Your task to perform on an android device: What's the weather today? Image 0: 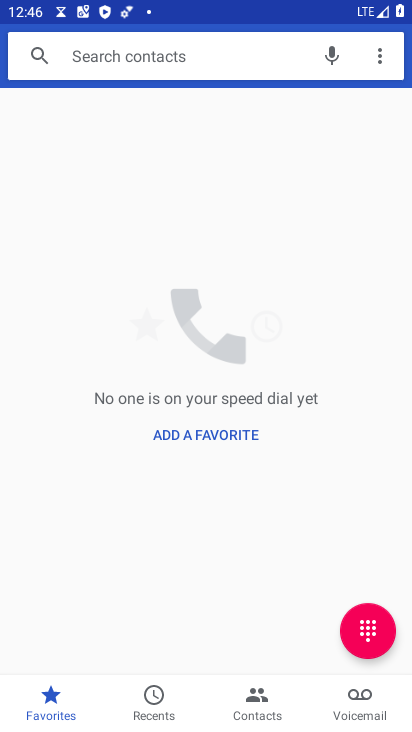
Step 0: press home button
Your task to perform on an android device: What's the weather today? Image 1: 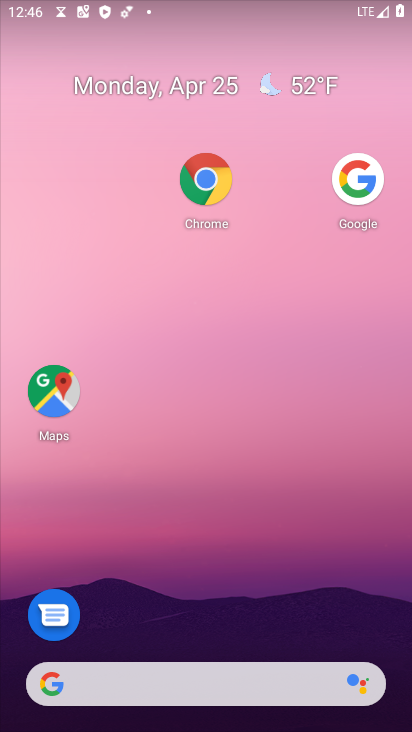
Step 1: drag from (381, 403) to (0, 393)
Your task to perform on an android device: What's the weather today? Image 2: 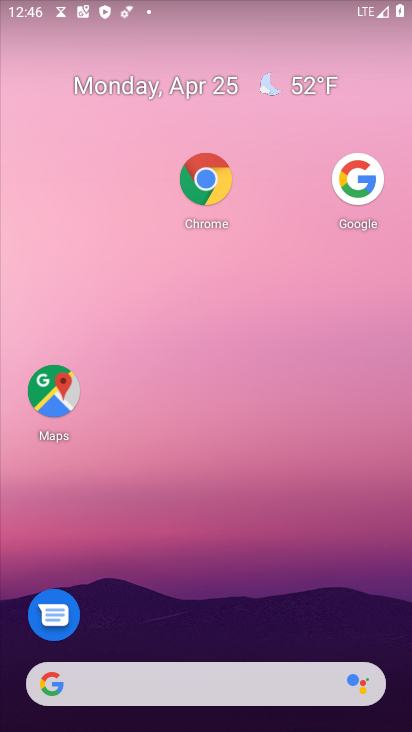
Step 2: drag from (368, 352) to (0, 367)
Your task to perform on an android device: What's the weather today? Image 3: 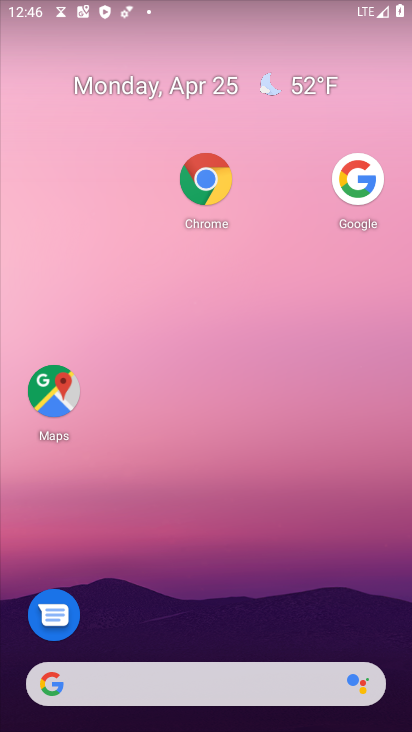
Step 3: drag from (134, 682) to (266, 105)
Your task to perform on an android device: What's the weather today? Image 4: 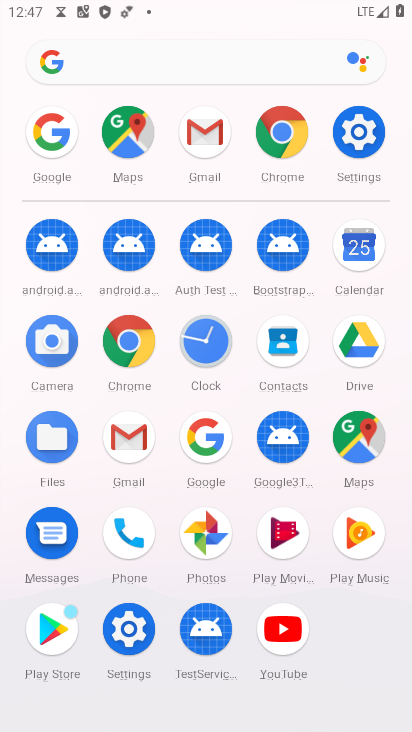
Step 4: click (207, 449)
Your task to perform on an android device: What's the weather today? Image 5: 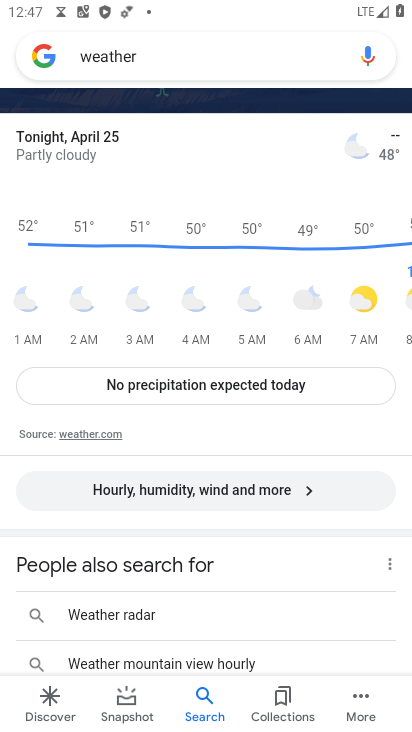
Step 5: task complete